Your task to perform on an android device: set an alarm Image 0: 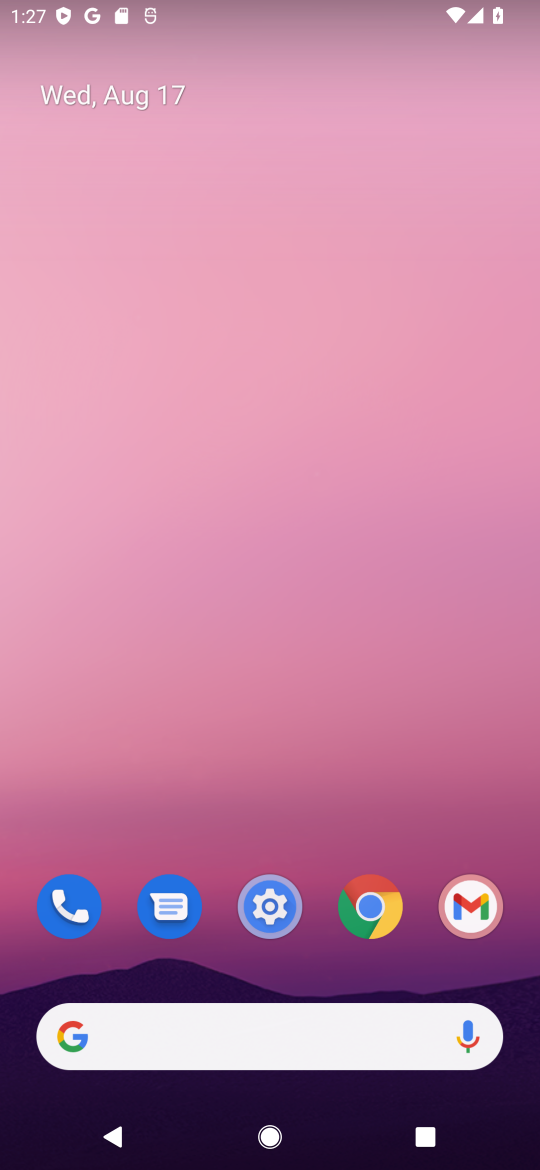
Step 0: press home button
Your task to perform on an android device: set an alarm Image 1: 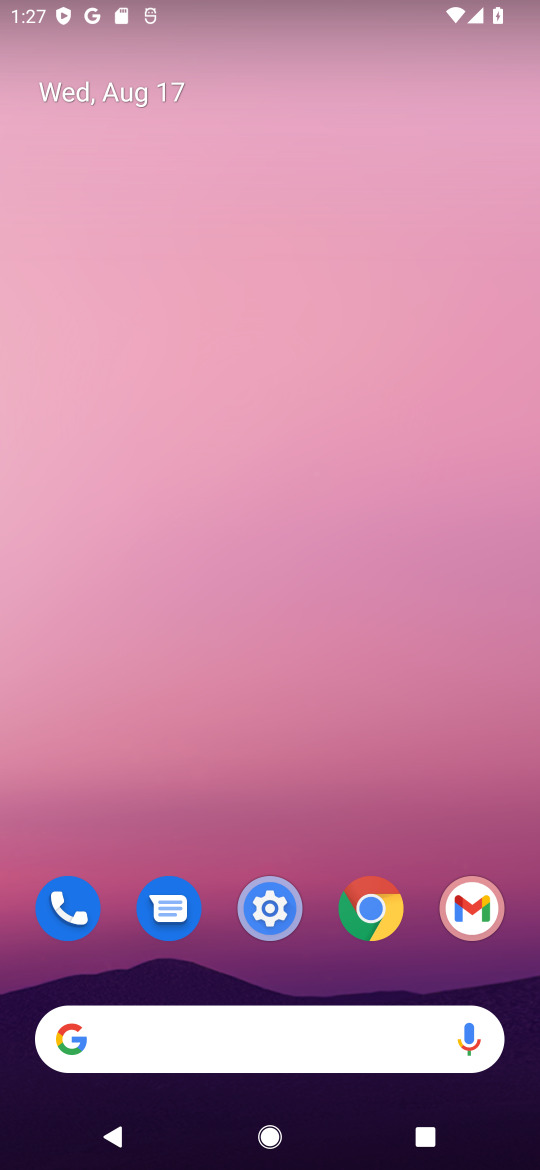
Step 1: drag from (272, 977) to (532, 46)
Your task to perform on an android device: set an alarm Image 2: 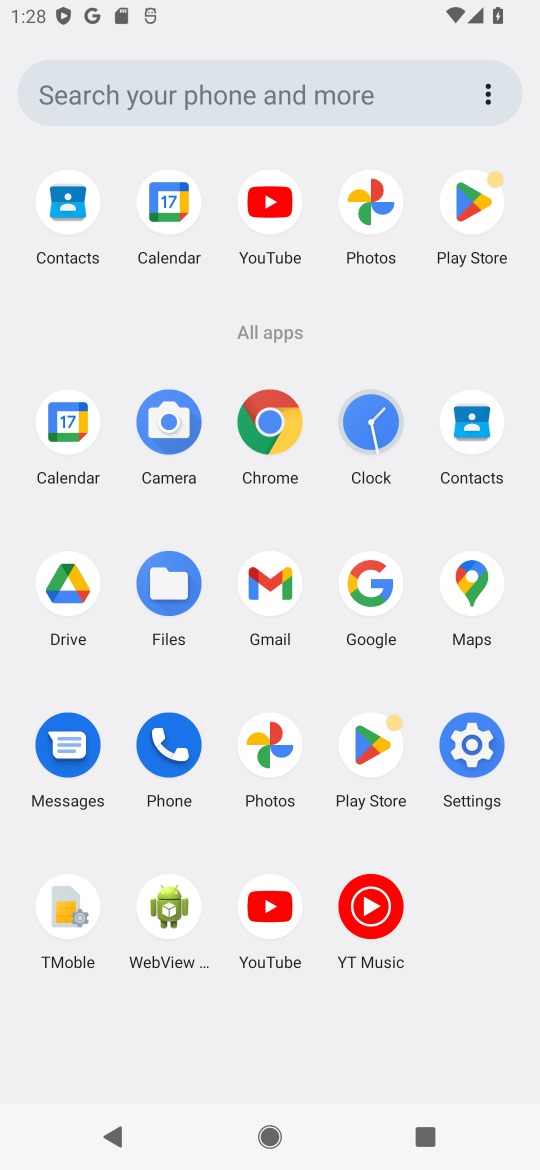
Step 2: click (362, 426)
Your task to perform on an android device: set an alarm Image 3: 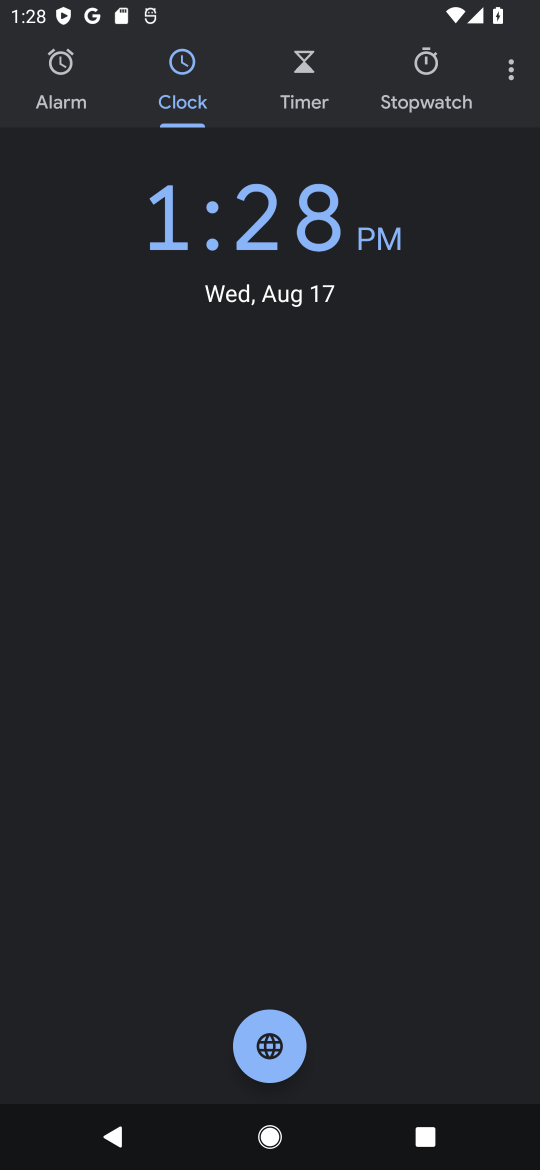
Step 3: click (62, 71)
Your task to perform on an android device: set an alarm Image 4: 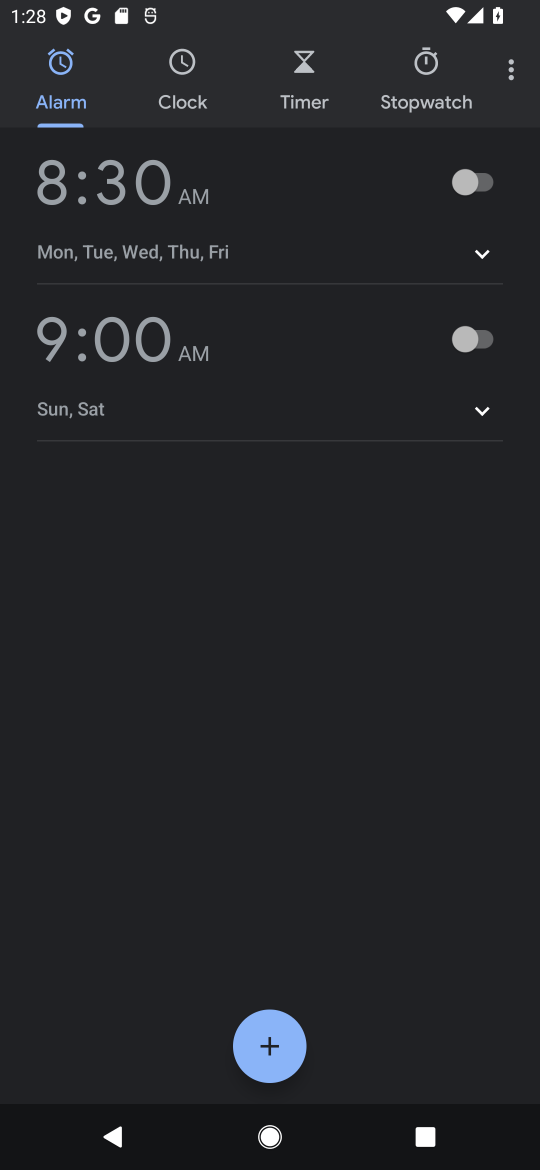
Step 4: click (474, 185)
Your task to perform on an android device: set an alarm Image 5: 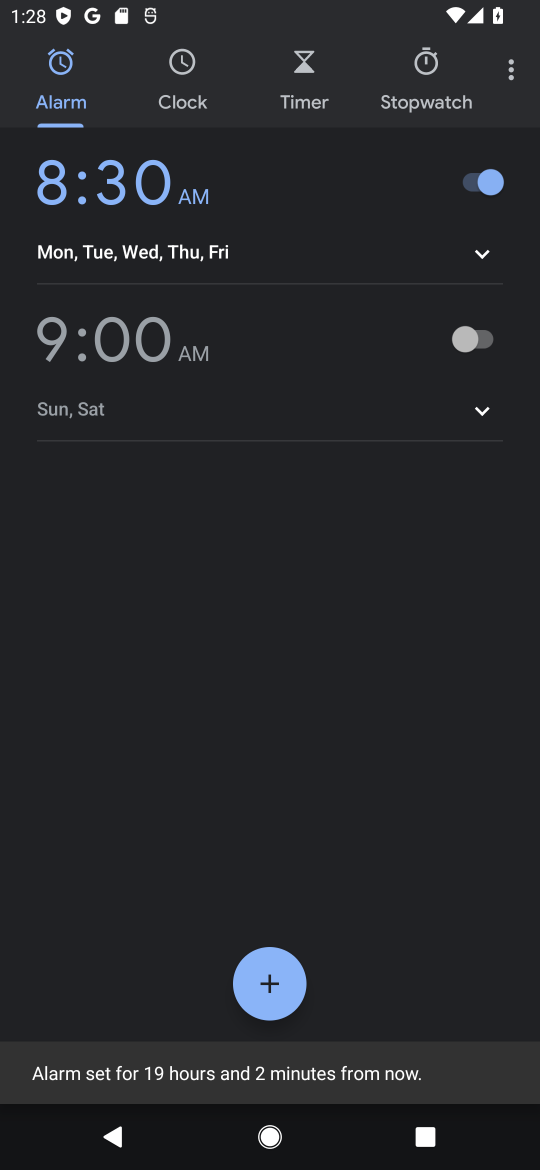
Step 5: task complete